Your task to perform on an android device: Clear all items from cart on costco.com. Image 0: 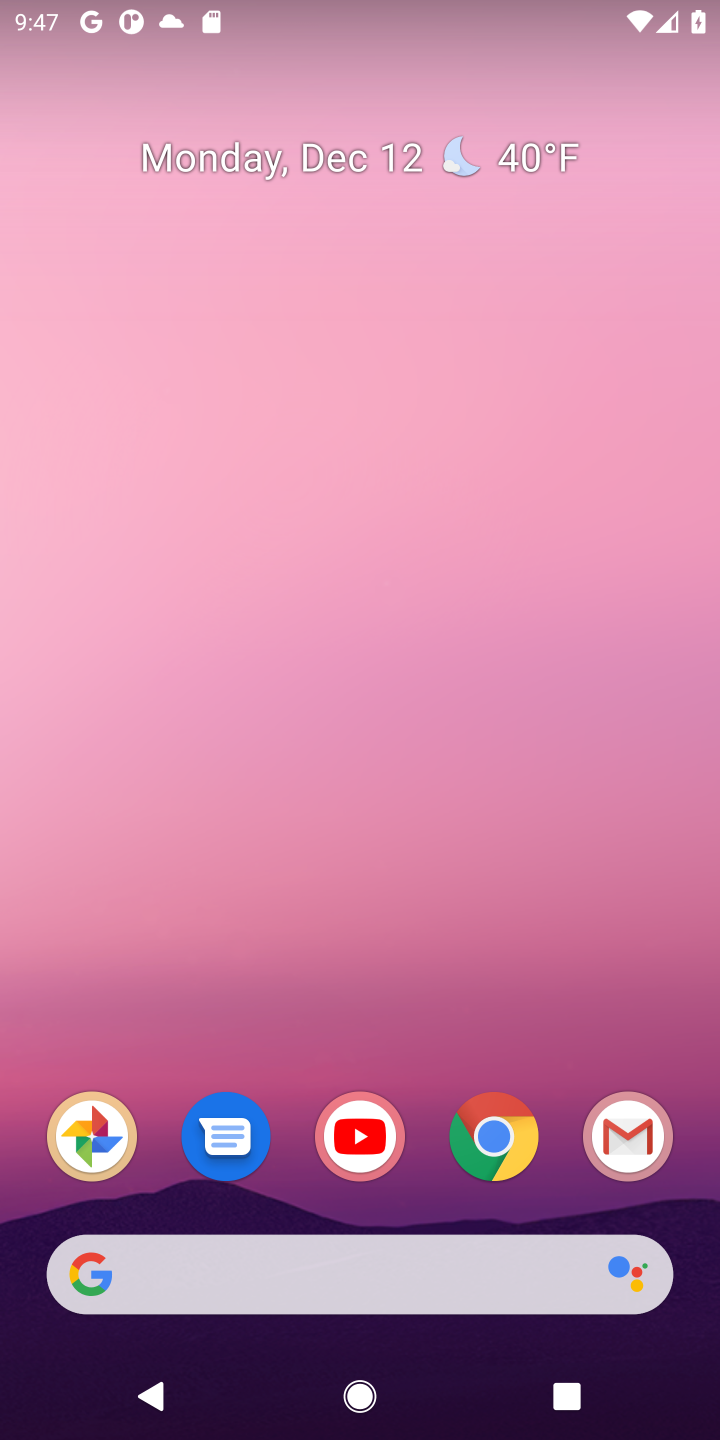
Step 0: click (492, 1154)
Your task to perform on an android device: Clear all items from cart on costco.com. Image 1: 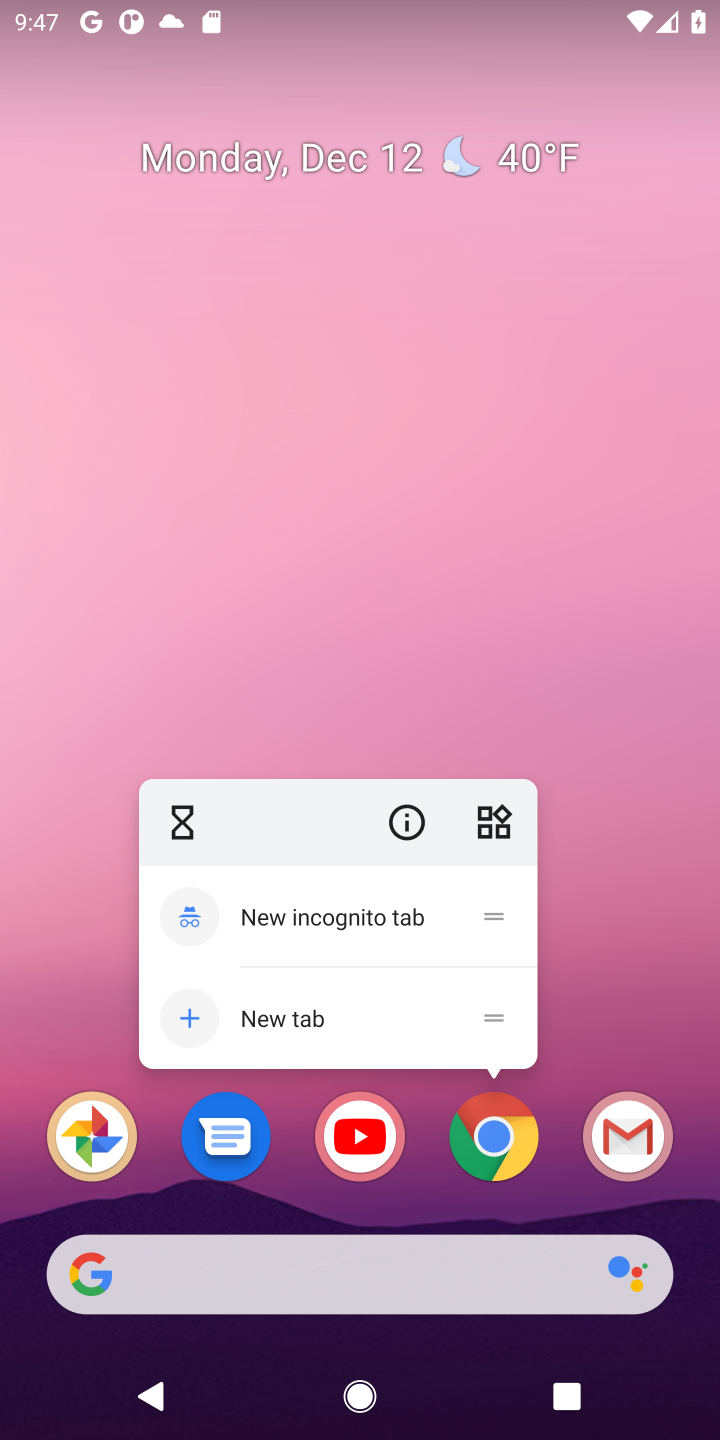
Step 1: click (497, 1149)
Your task to perform on an android device: Clear all items from cart on costco.com. Image 2: 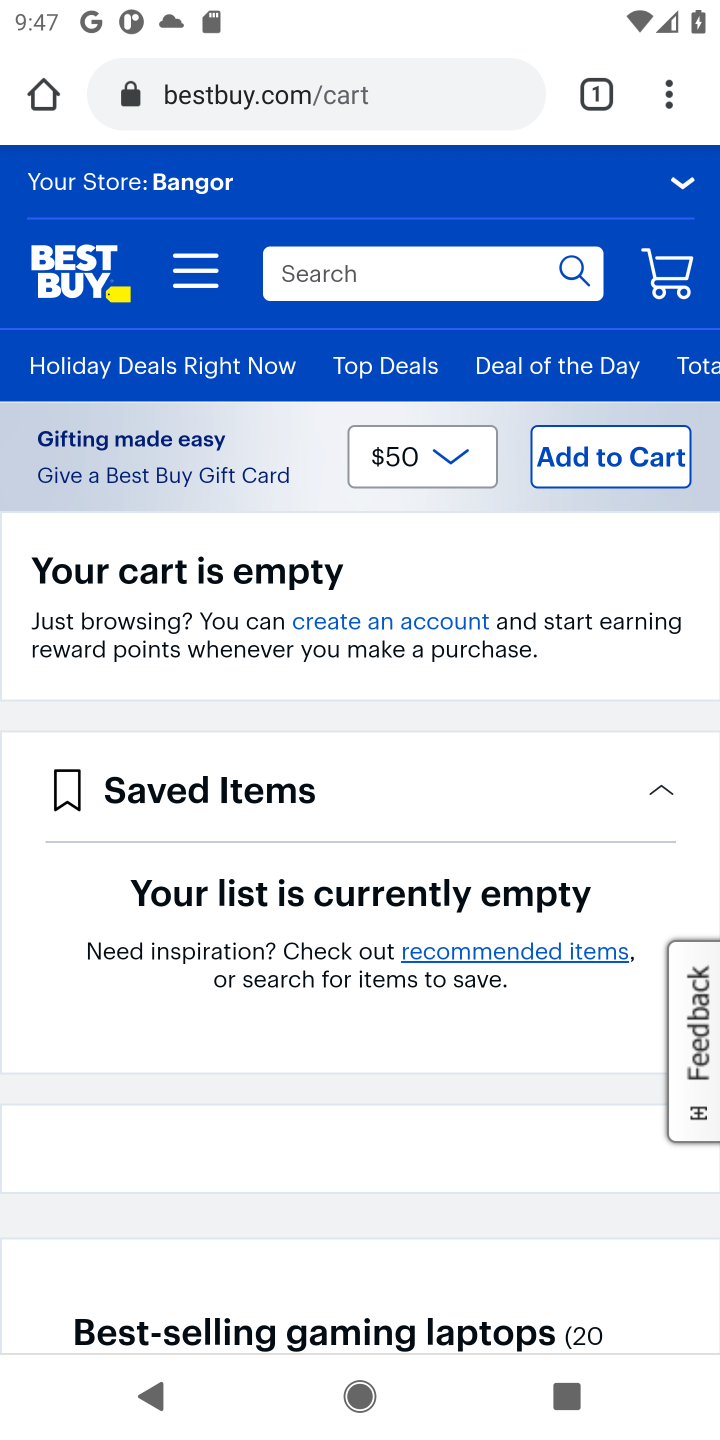
Step 2: click (247, 109)
Your task to perform on an android device: Clear all items from cart on costco.com. Image 3: 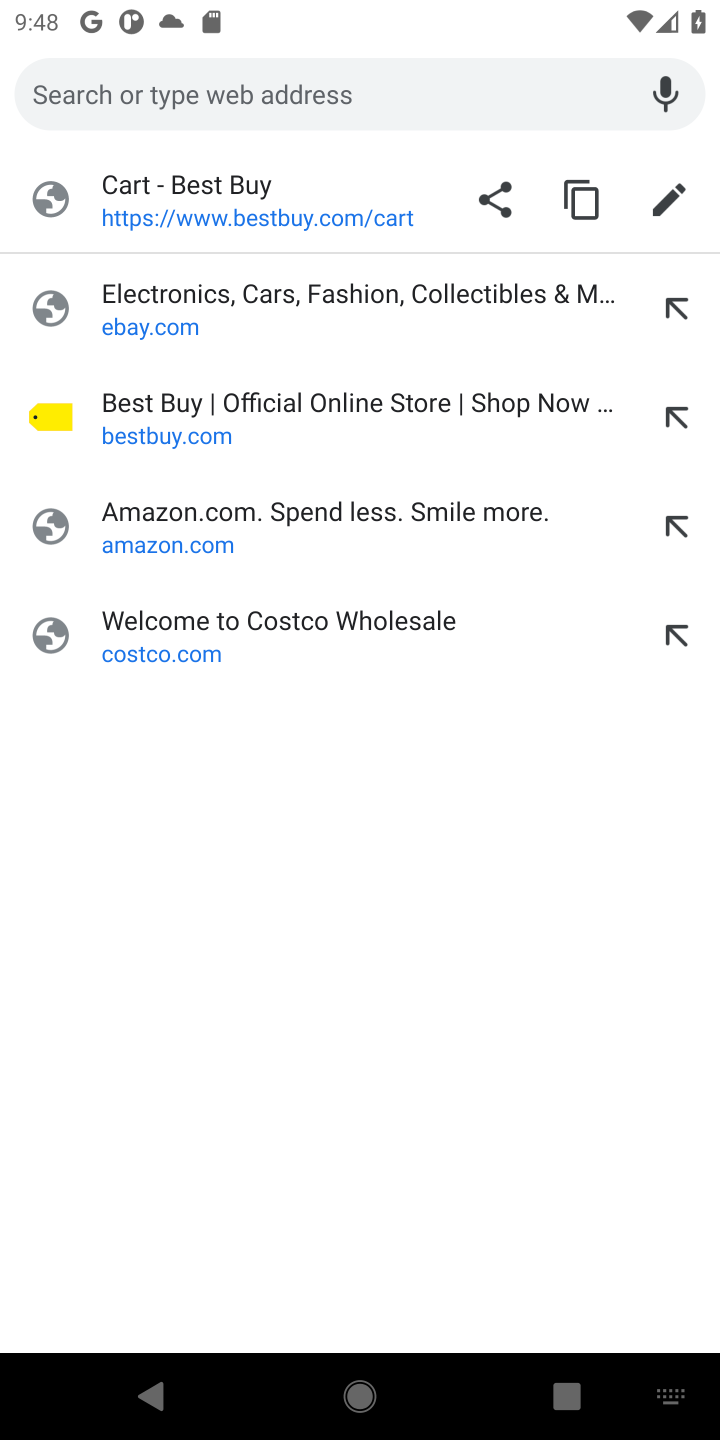
Step 3: click (143, 652)
Your task to perform on an android device: Clear all items from cart on costco.com. Image 4: 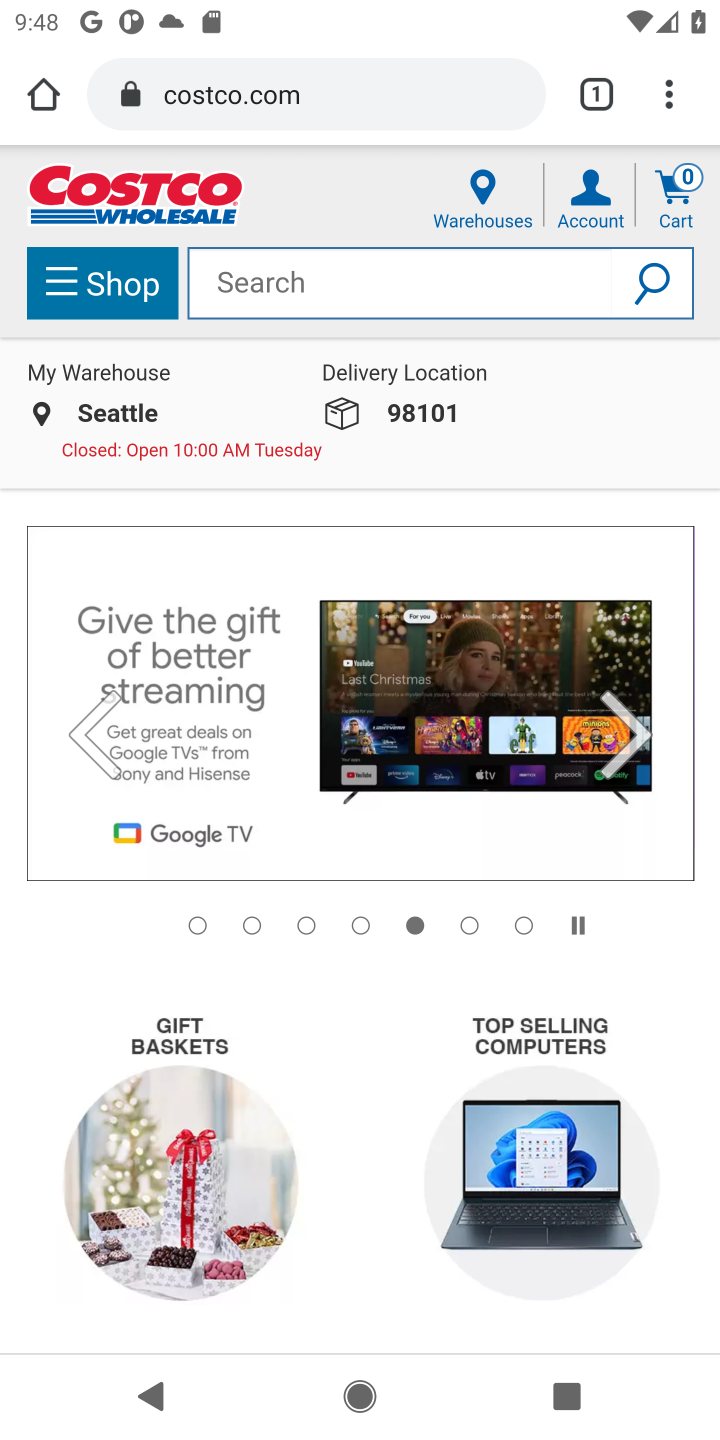
Step 4: click (659, 203)
Your task to perform on an android device: Clear all items from cart on costco.com. Image 5: 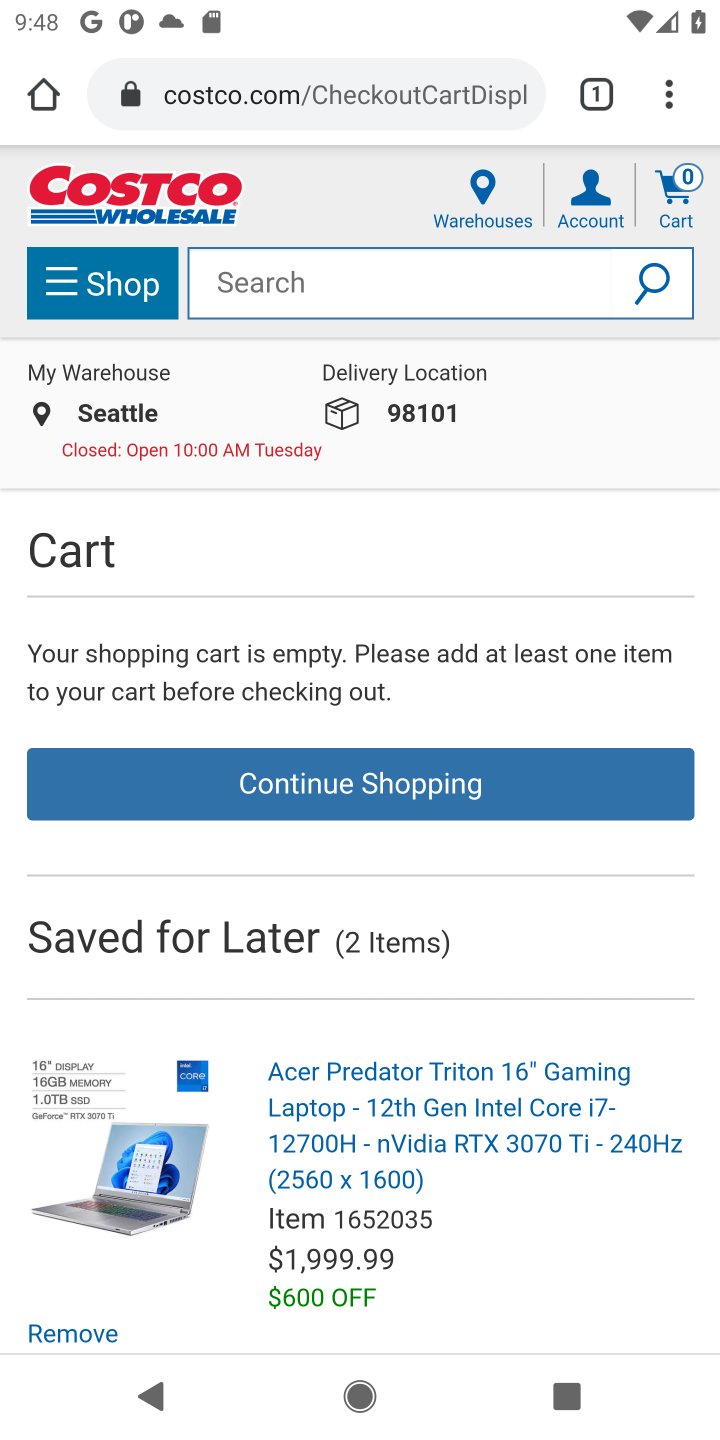
Step 5: task complete